Your task to perform on an android device: check out phone information Image 0: 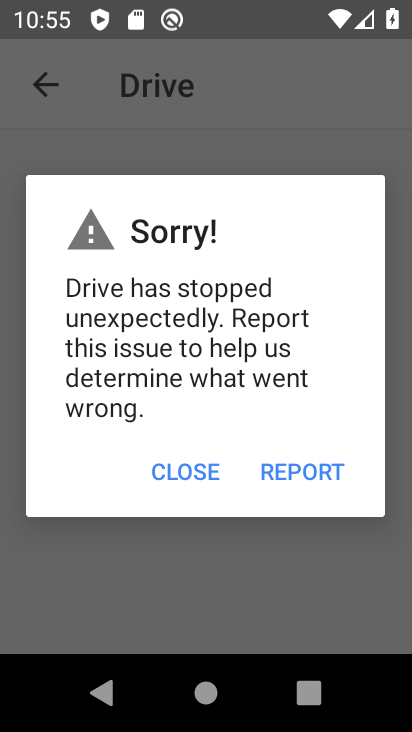
Step 0: press home button
Your task to perform on an android device: check out phone information Image 1: 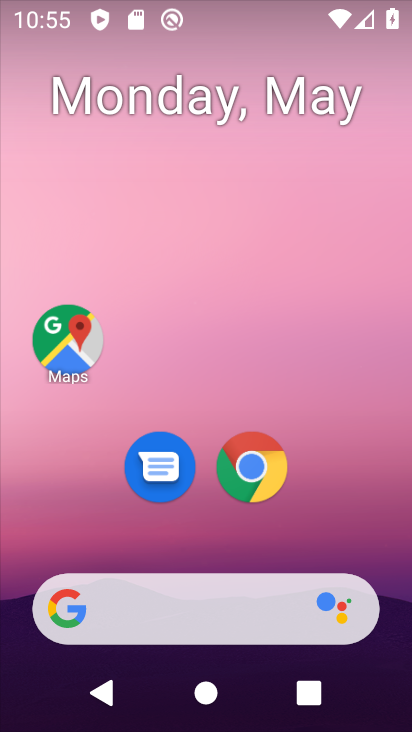
Step 1: drag from (238, 550) to (236, 29)
Your task to perform on an android device: check out phone information Image 2: 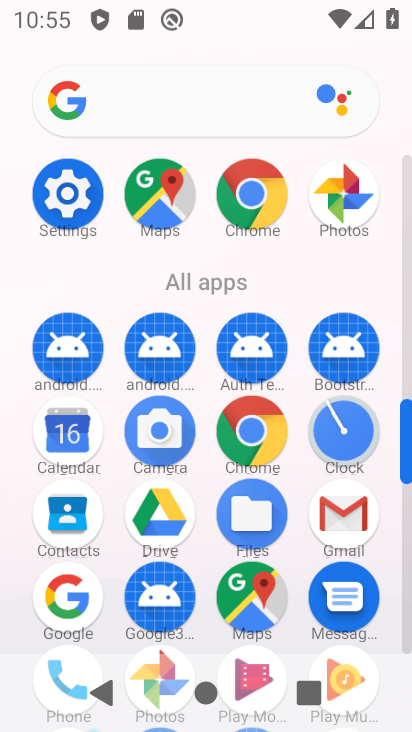
Step 2: click (82, 202)
Your task to perform on an android device: check out phone information Image 3: 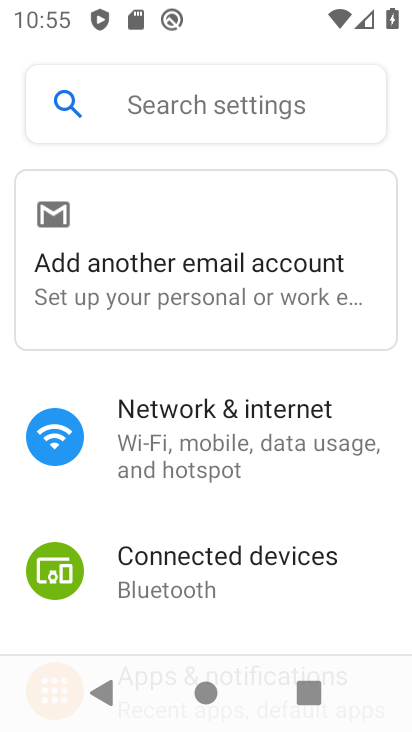
Step 3: drag from (216, 560) to (283, 32)
Your task to perform on an android device: check out phone information Image 4: 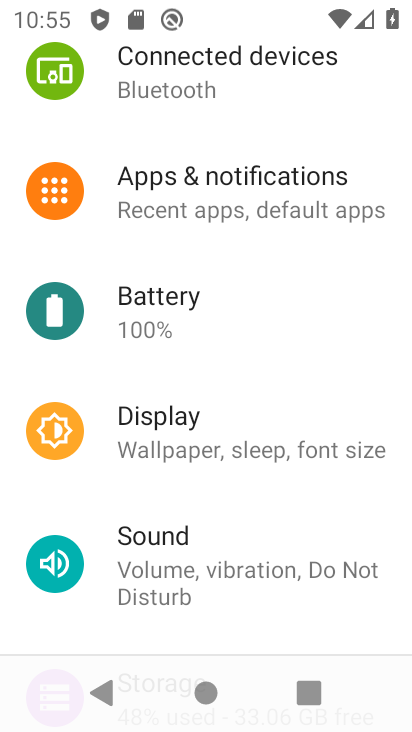
Step 4: drag from (241, 557) to (252, 94)
Your task to perform on an android device: check out phone information Image 5: 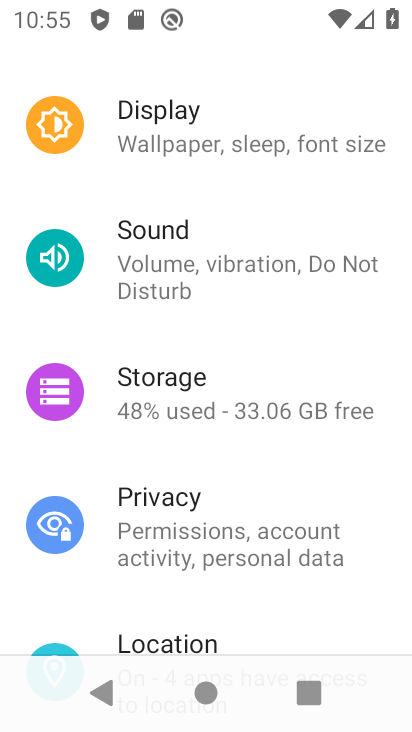
Step 5: drag from (248, 520) to (302, 113)
Your task to perform on an android device: check out phone information Image 6: 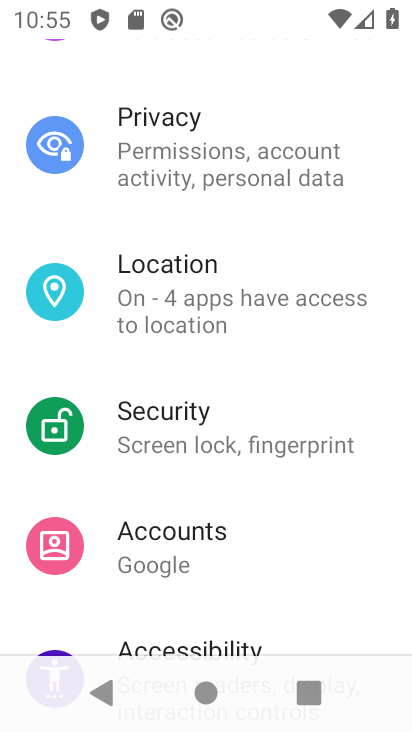
Step 6: drag from (242, 577) to (256, 69)
Your task to perform on an android device: check out phone information Image 7: 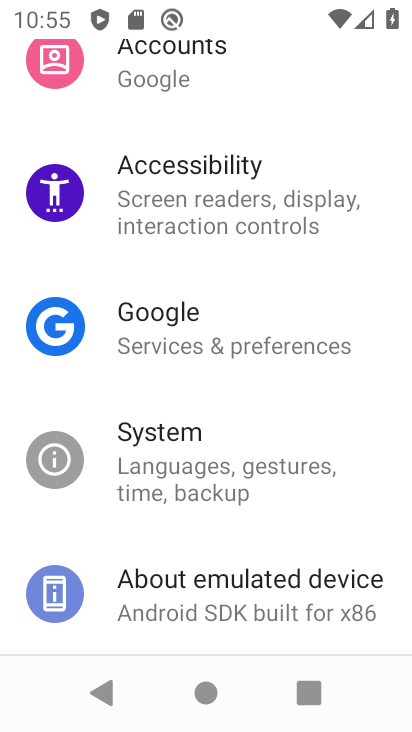
Step 7: click (201, 623)
Your task to perform on an android device: check out phone information Image 8: 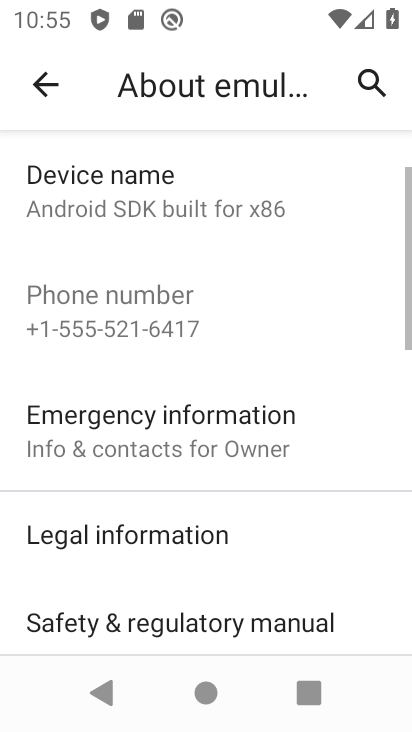
Step 8: task complete